Your task to perform on an android device: turn off airplane mode Image 0: 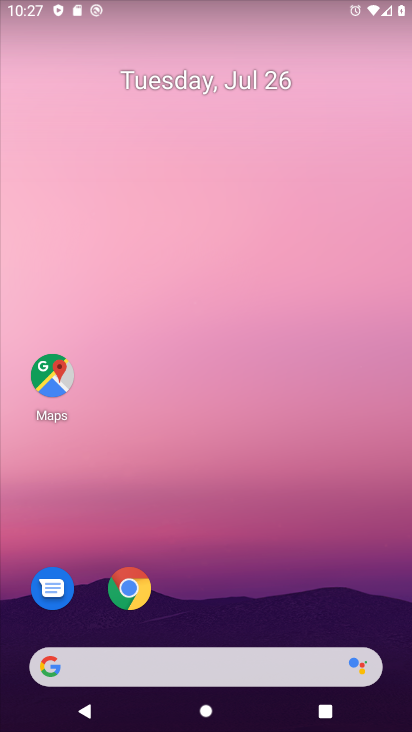
Step 0: drag from (354, 9) to (219, 657)
Your task to perform on an android device: turn off airplane mode Image 1: 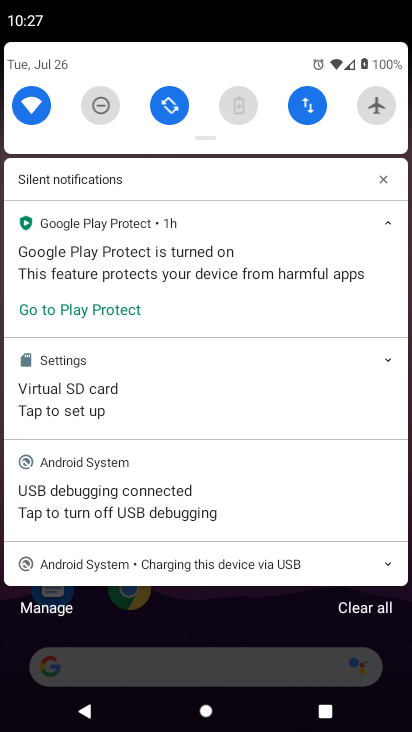
Step 1: task complete